Your task to perform on an android device: toggle notification dots Image 0: 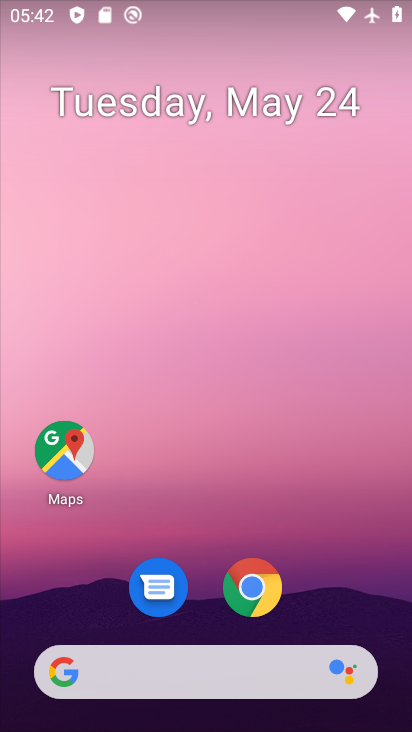
Step 0: drag from (339, 464) to (204, 19)
Your task to perform on an android device: toggle notification dots Image 1: 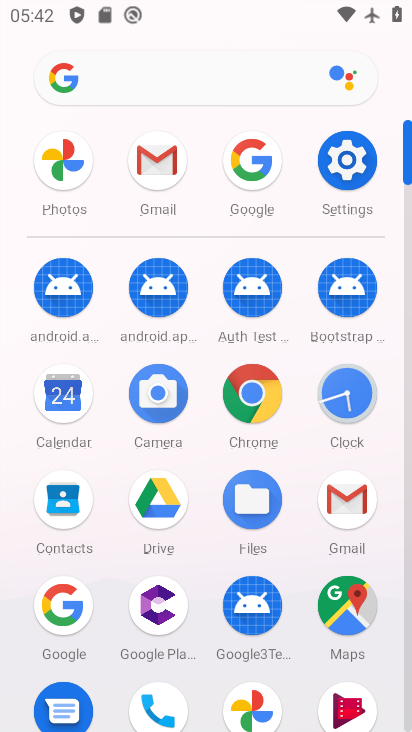
Step 1: click (335, 148)
Your task to perform on an android device: toggle notification dots Image 2: 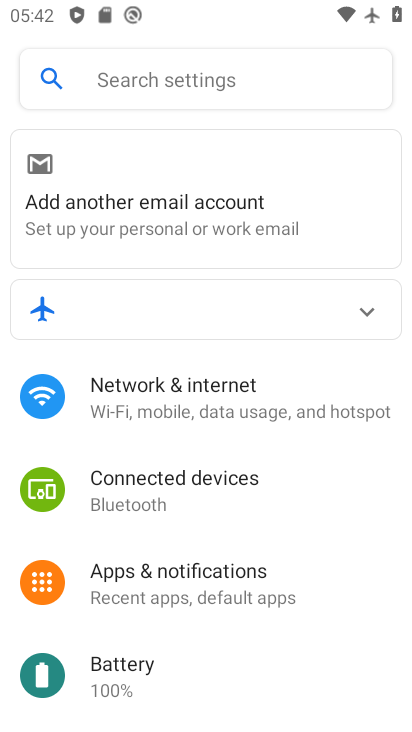
Step 2: click (256, 583)
Your task to perform on an android device: toggle notification dots Image 3: 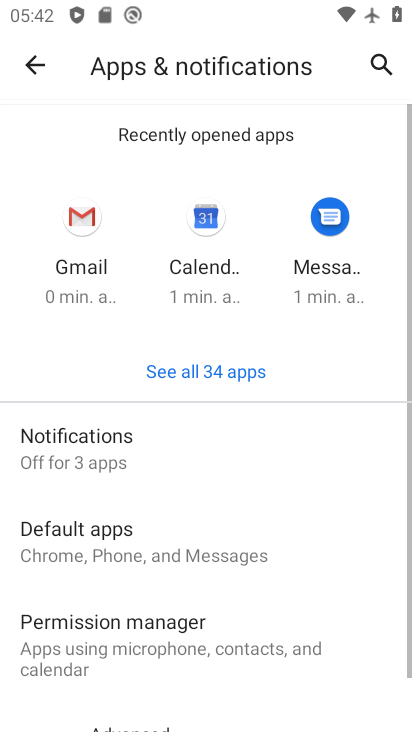
Step 3: click (159, 452)
Your task to perform on an android device: toggle notification dots Image 4: 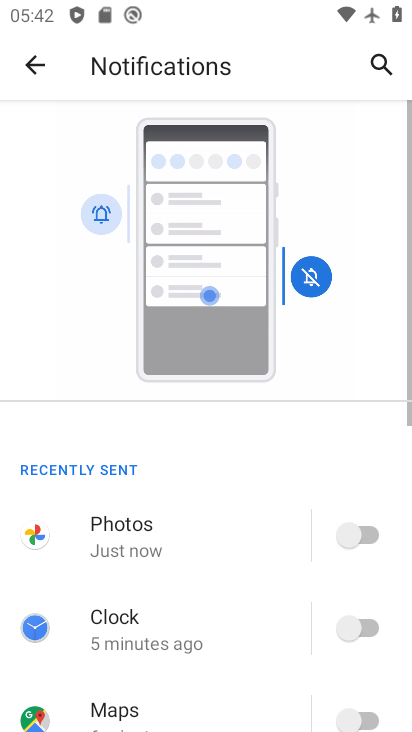
Step 4: drag from (284, 678) to (229, 163)
Your task to perform on an android device: toggle notification dots Image 5: 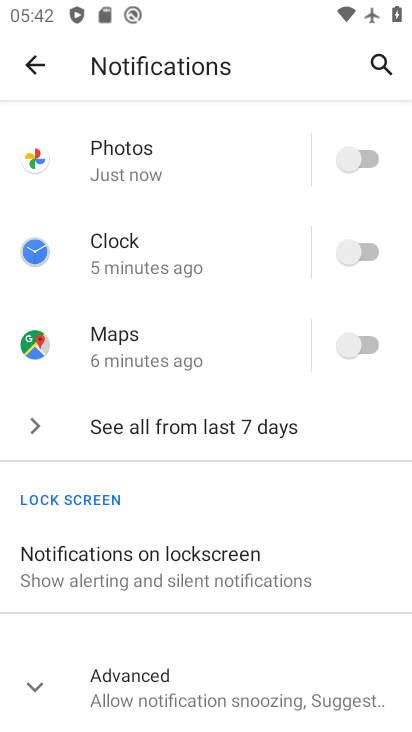
Step 5: click (239, 673)
Your task to perform on an android device: toggle notification dots Image 6: 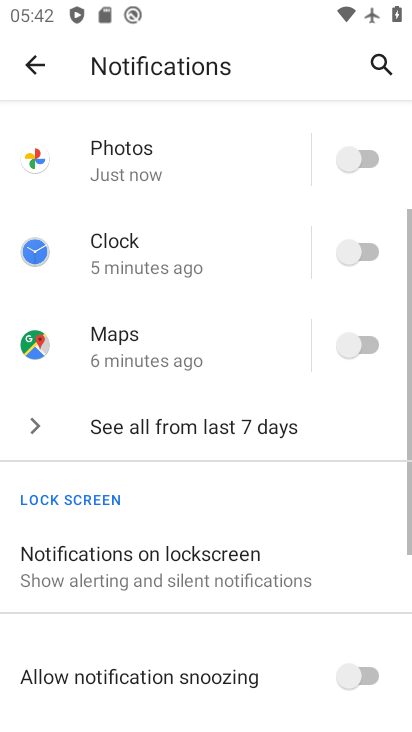
Step 6: drag from (246, 642) to (231, 89)
Your task to perform on an android device: toggle notification dots Image 7: 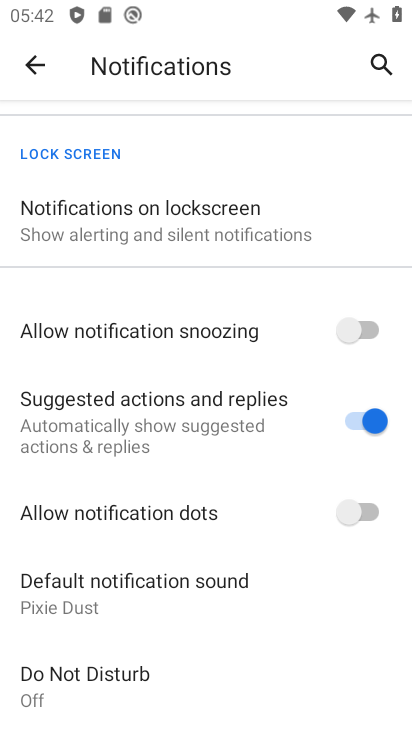
Step 7: click (357, 502)
Your task to perform on an android device: toggle notification dots Image 8: 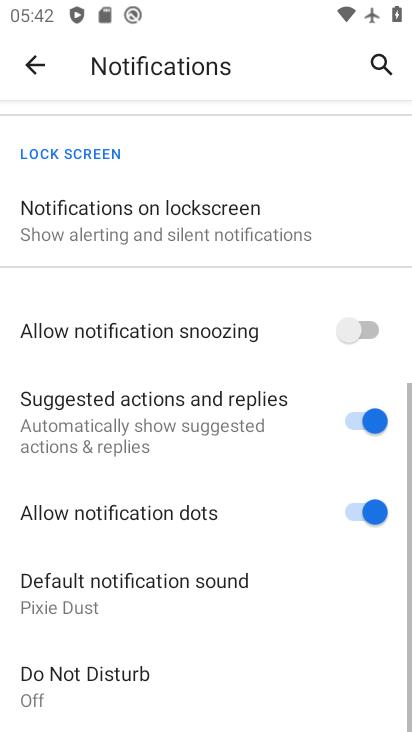
Step 8: task complete